Your task to perform on an android device: Open Android settings Image 0: 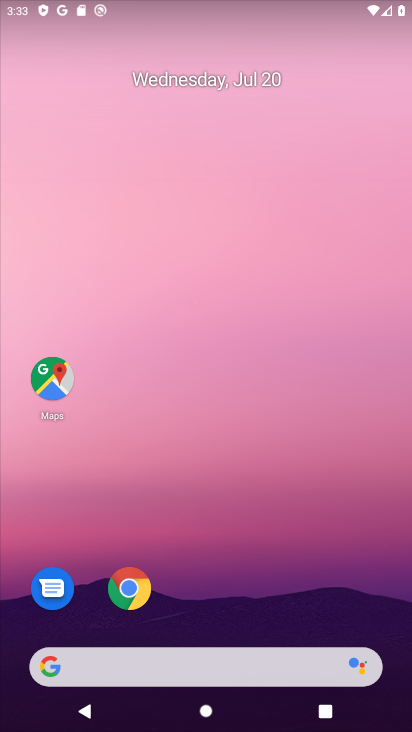
Step 0: drag from (174, 595) to (175, 283)
Your task to perform on an android device: Open Android settings Image 1: 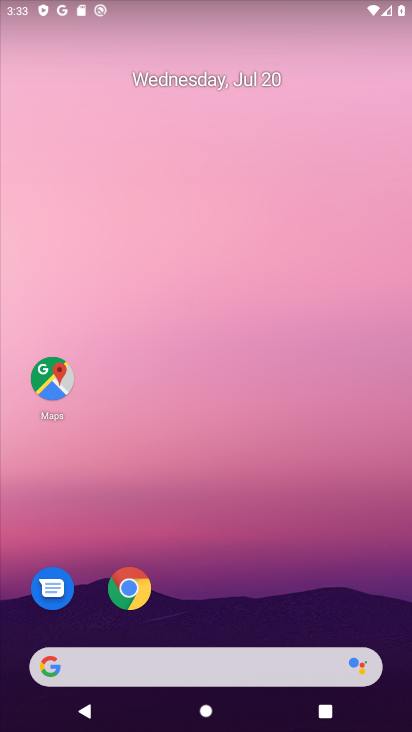
Step 1: drag from (212, 590) to (172, 37)
Your task to perform on an android device: Open Android settings Image 2: 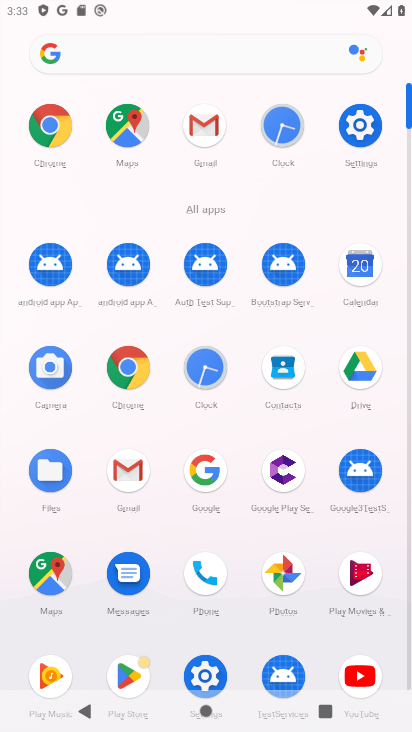
Step 2: click (369, 110)
Your task to perform on an android device: Open Android settings Image 3: 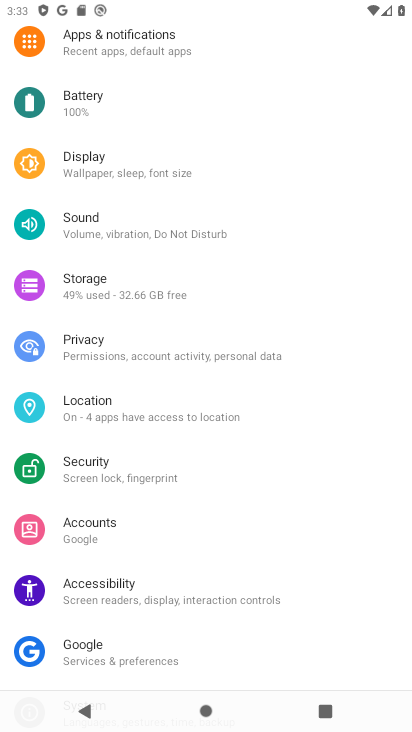
Step 3: task complete